Your task to perform on an android device: Search for apple airpods on costco, select the first entry, and add it to the cart. Image 0: 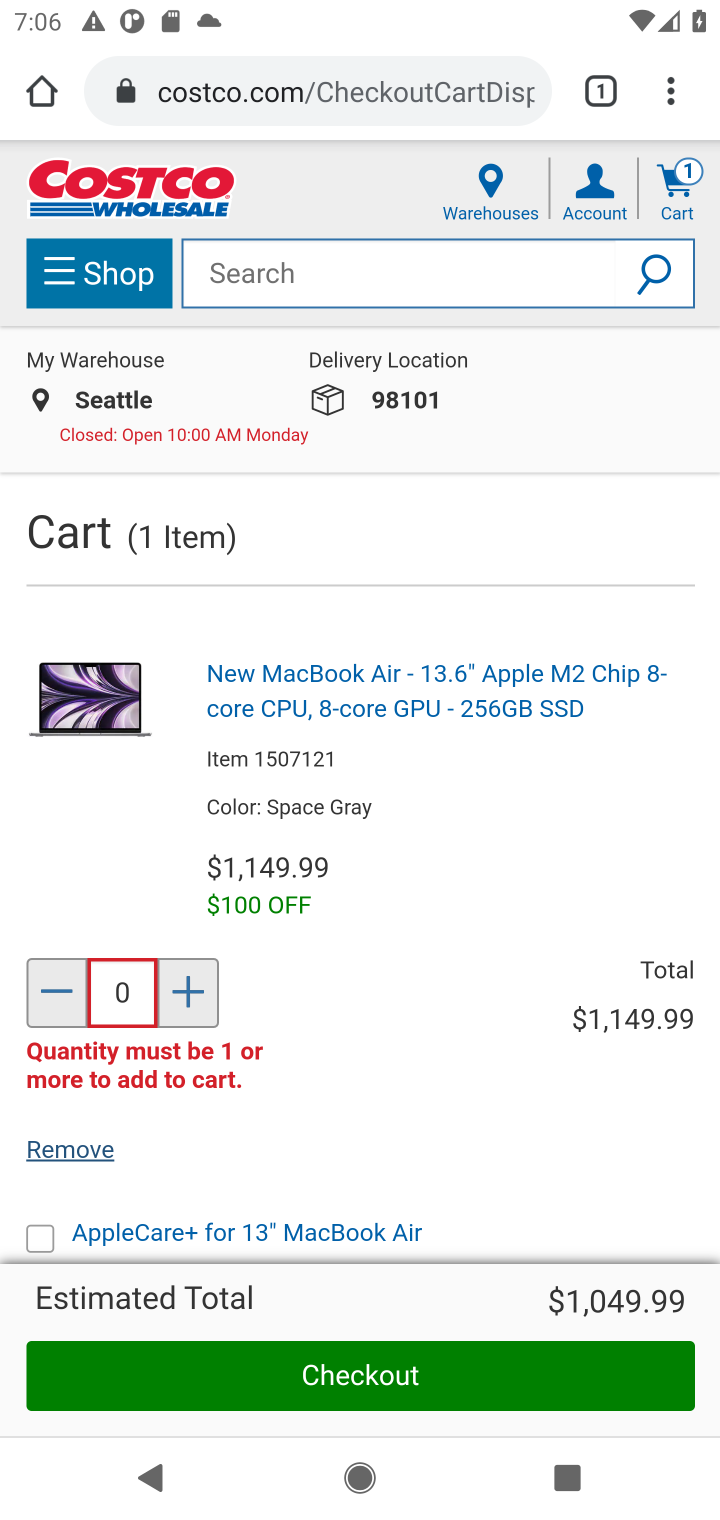
Step 0: press home button
Your task to perform on an android device: Search for apple airpods on costco, select the first entry, and add it to the cart. Image 1: 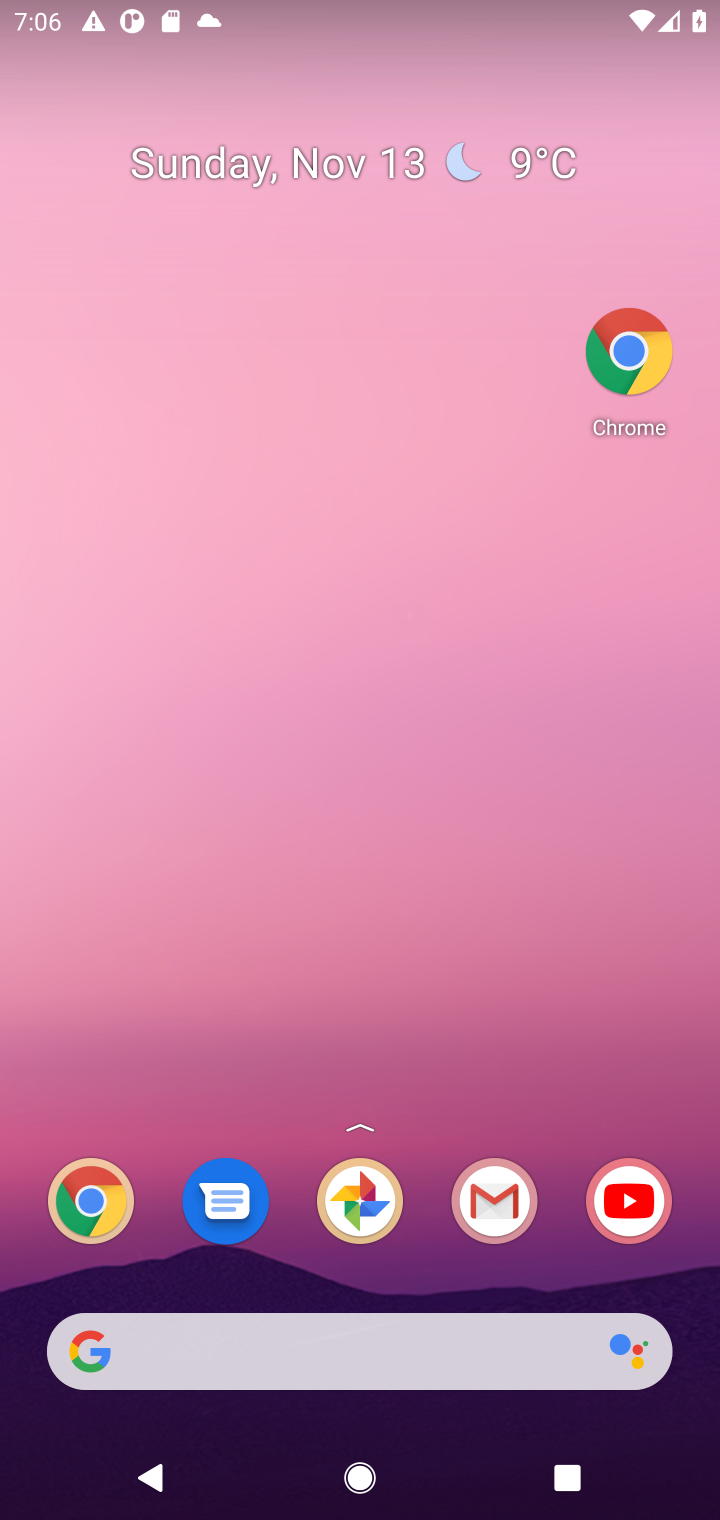
Step 1: drag from (421, 1223) to (292, 299)
Your task to perform on an android device: Search for apple airpods on costco, select the first entry, and add it to the cart. Image 2: 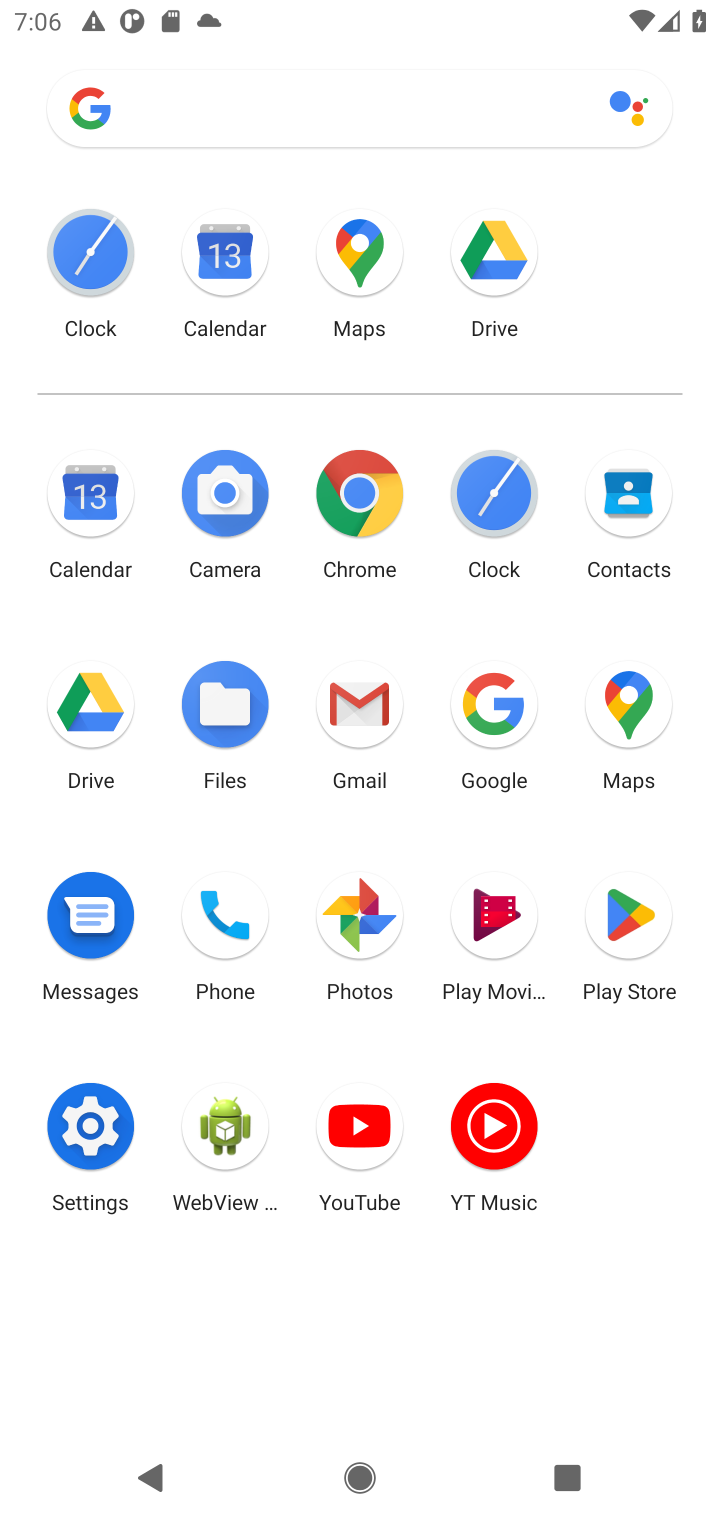
Step 2: click (364, 507)
Your task to perform on an android device: Search for apple airpods on costco, select the first entry, and add it to the cart. Image 3: 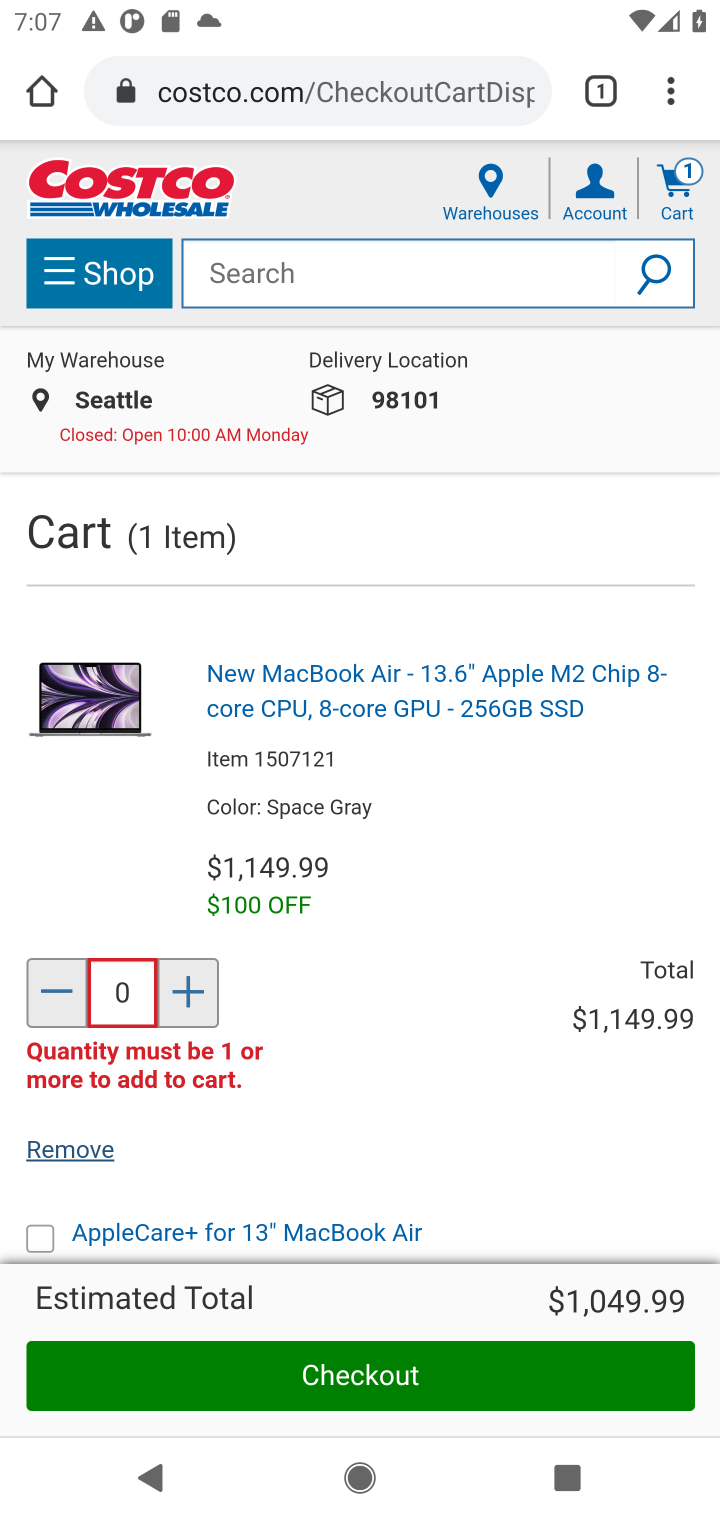
Step 3: click (405, 266)
Your task to perform on an android device: Search for apple airpods on costco, select the first entry, and add it to the cart. Image 4: 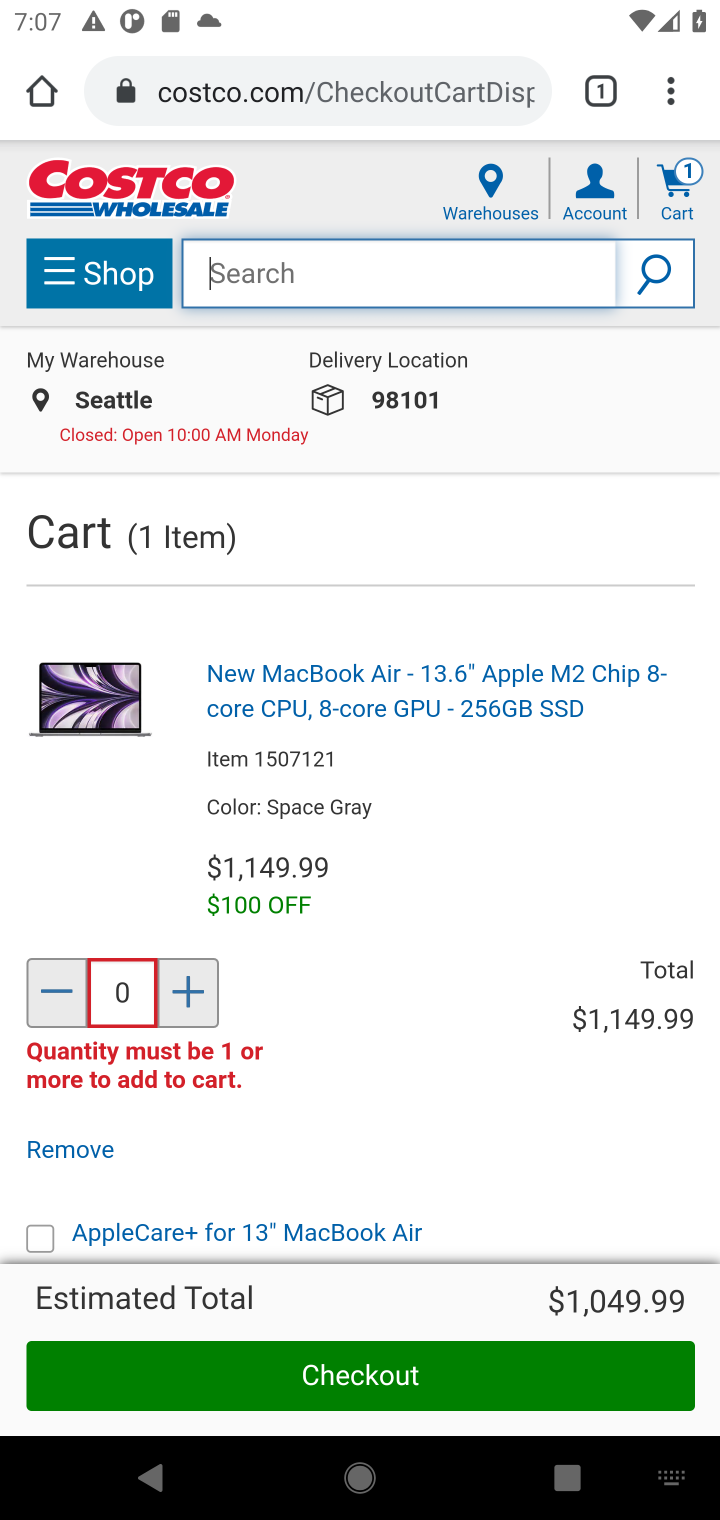
Step 4: type "apple airpods"
Your task to perform on an android device: Search for apple airpods on costco, select the first entry, and add it to the cart. Image 5: 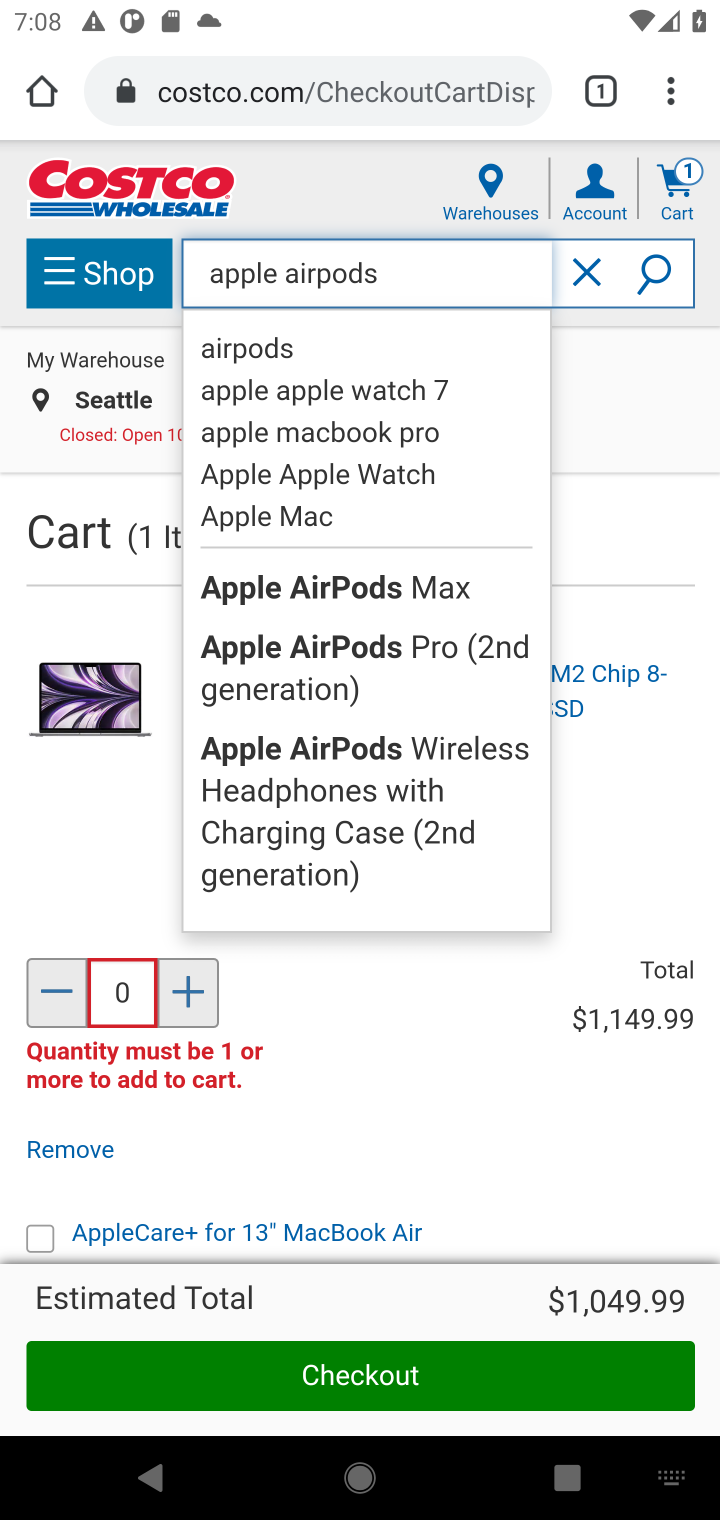
Step 5: click (681, 265)
Your task to perform on an android device: Search for apple airpods on costco, select the first entry, and add it to the cart. Image 6: 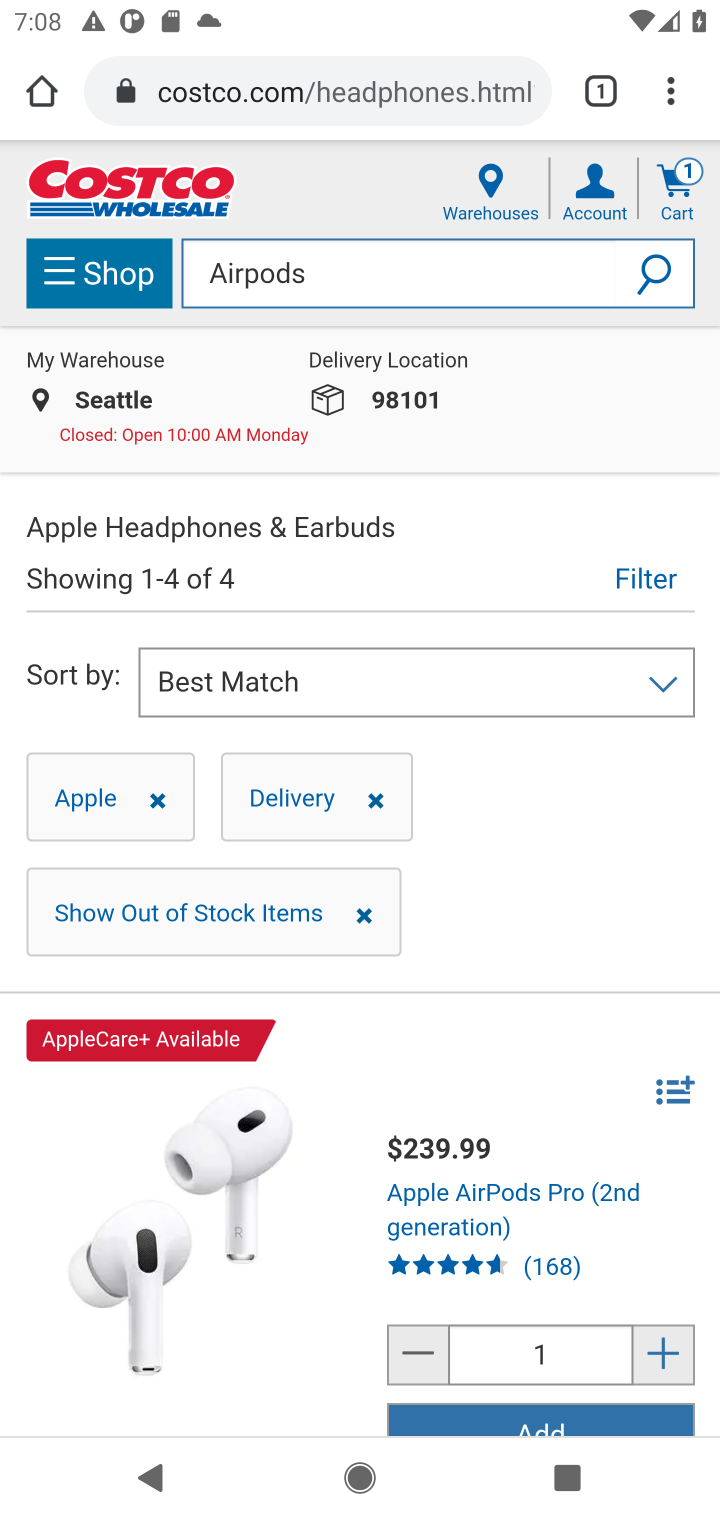
Step 6: click (295, 270)
Your task to perform on an android device: Search for apple airpods on costco, select the first entry, and add it to the cart. Image 7: 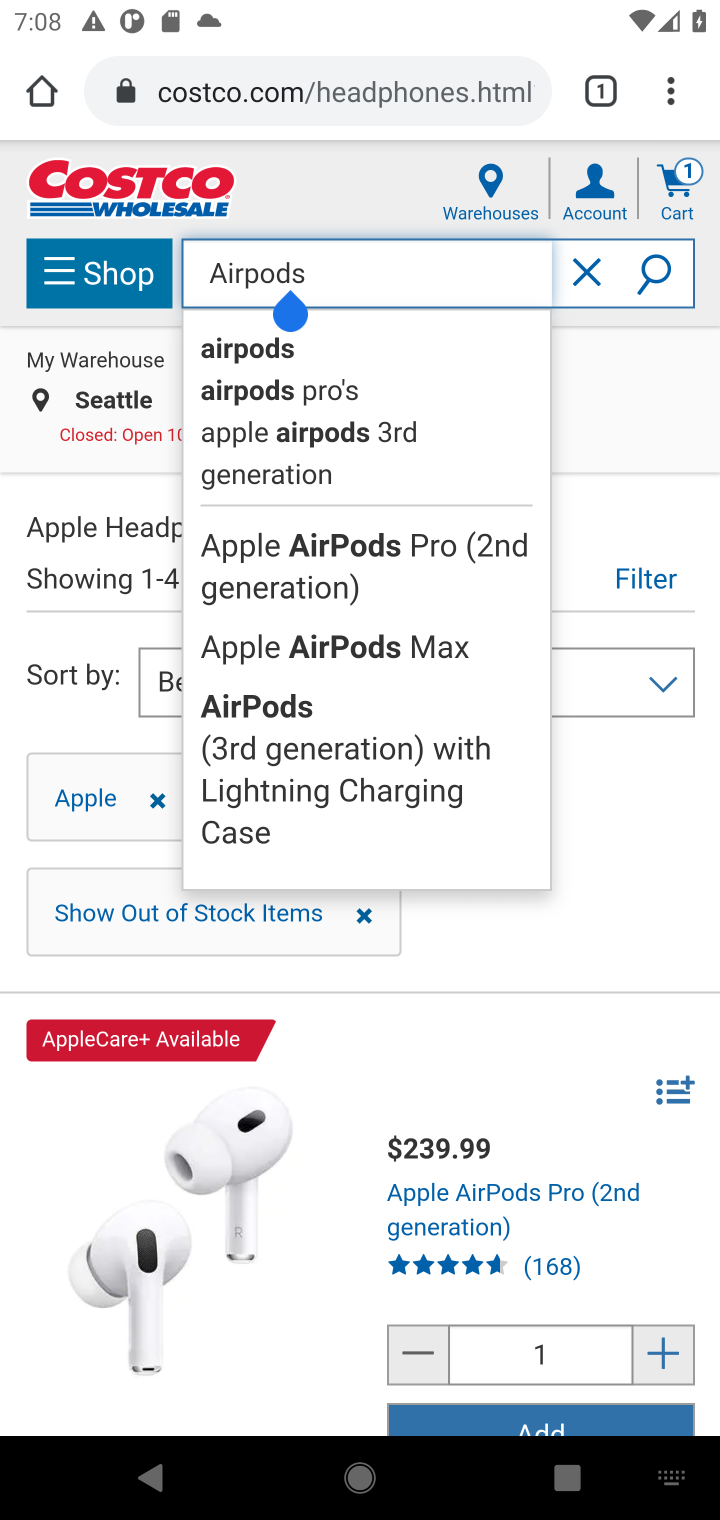
Step 7: click (583, 276)
Your task to perform on an android device: Search for apple airpods on costco, select the first entry, and add it to the cart. Image 8: 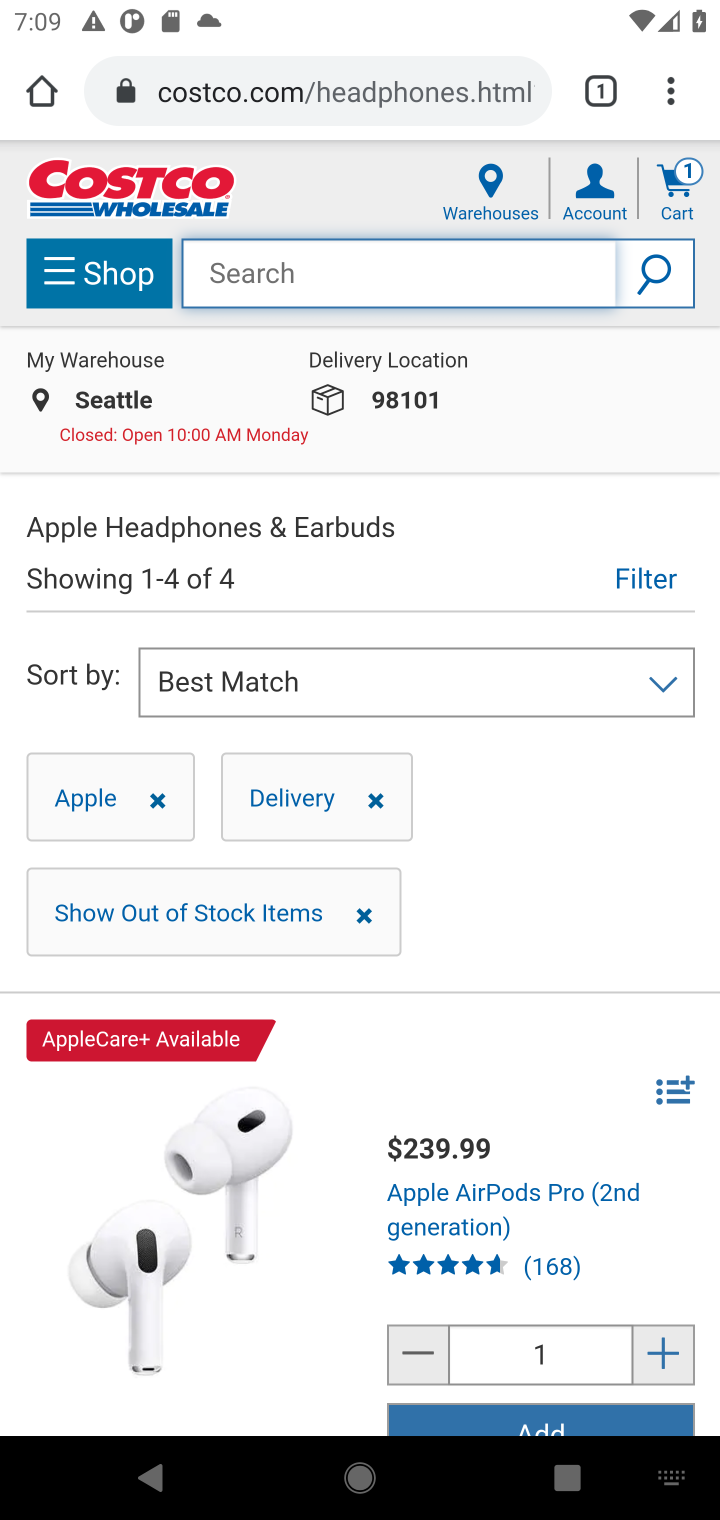
Step 8: type "applw airpods"
Your task to perform on an android device: Search for apple airpods on costco, select the first entry, and add it to the cart. Image 9: 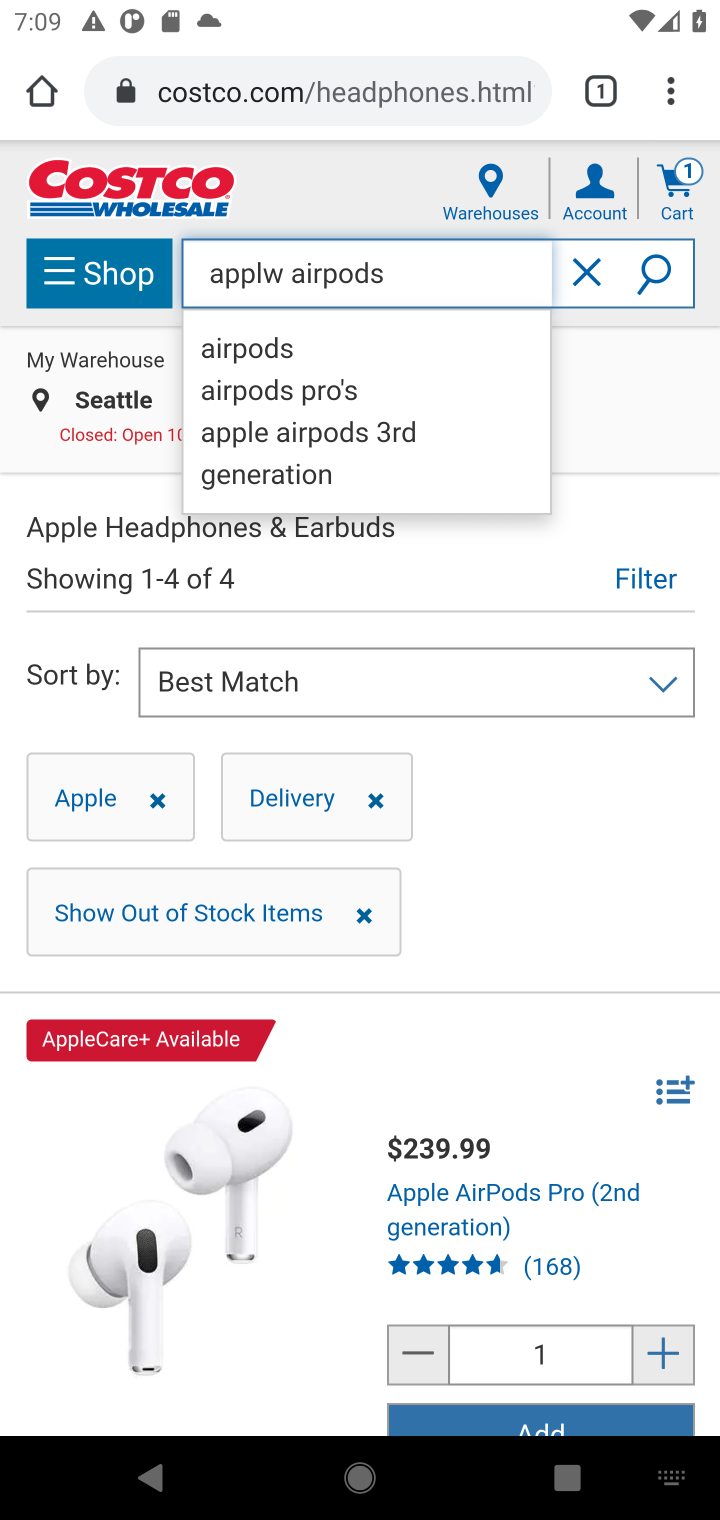
Step 9: press enter
Your task to perform on an android device: Search for apple airpods on costco, select the first entry, and add it to the cart. Image 10: 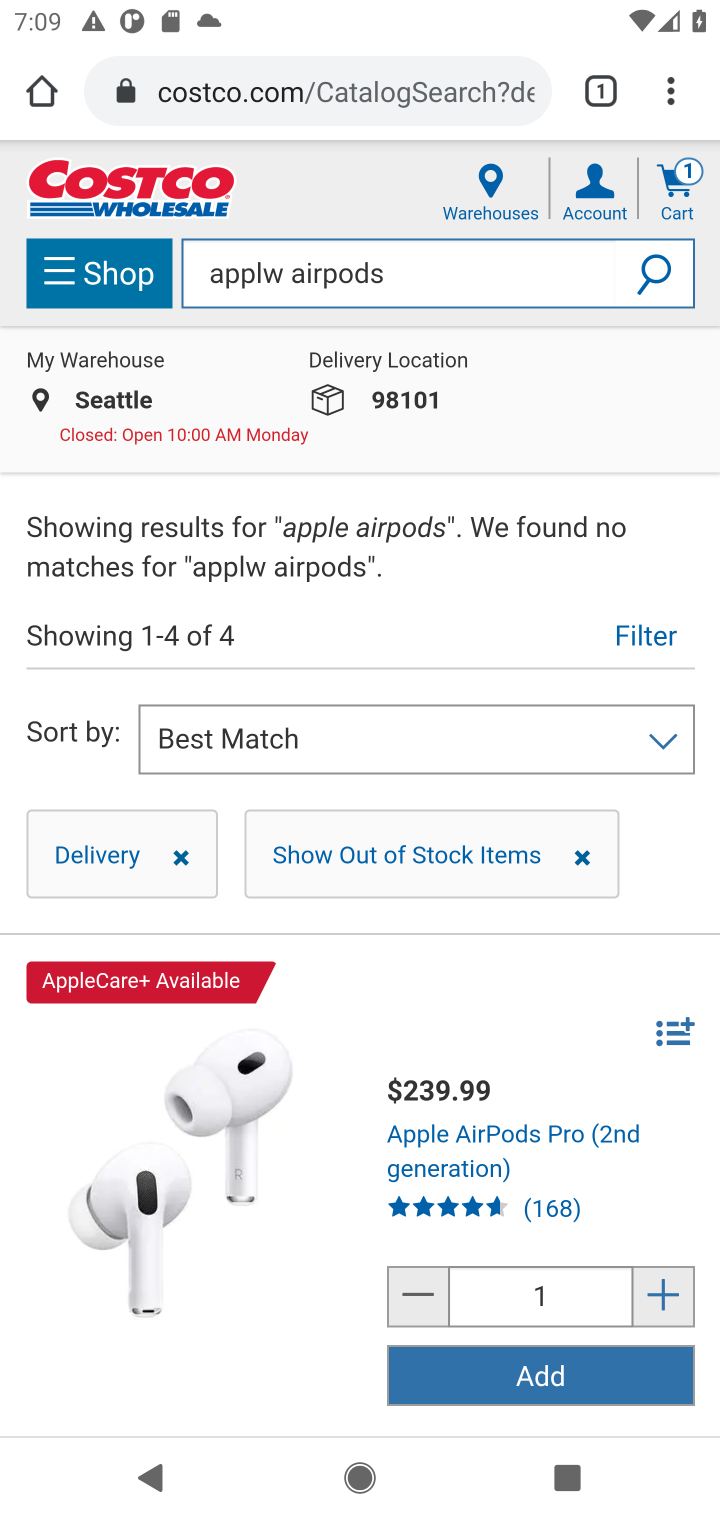
Step 10: drag from (538, 1112) to (473, 482)
Your task to perform on an android device: Search for apple airpods on costco, select the first entry, and add it to the cart. Image 11: 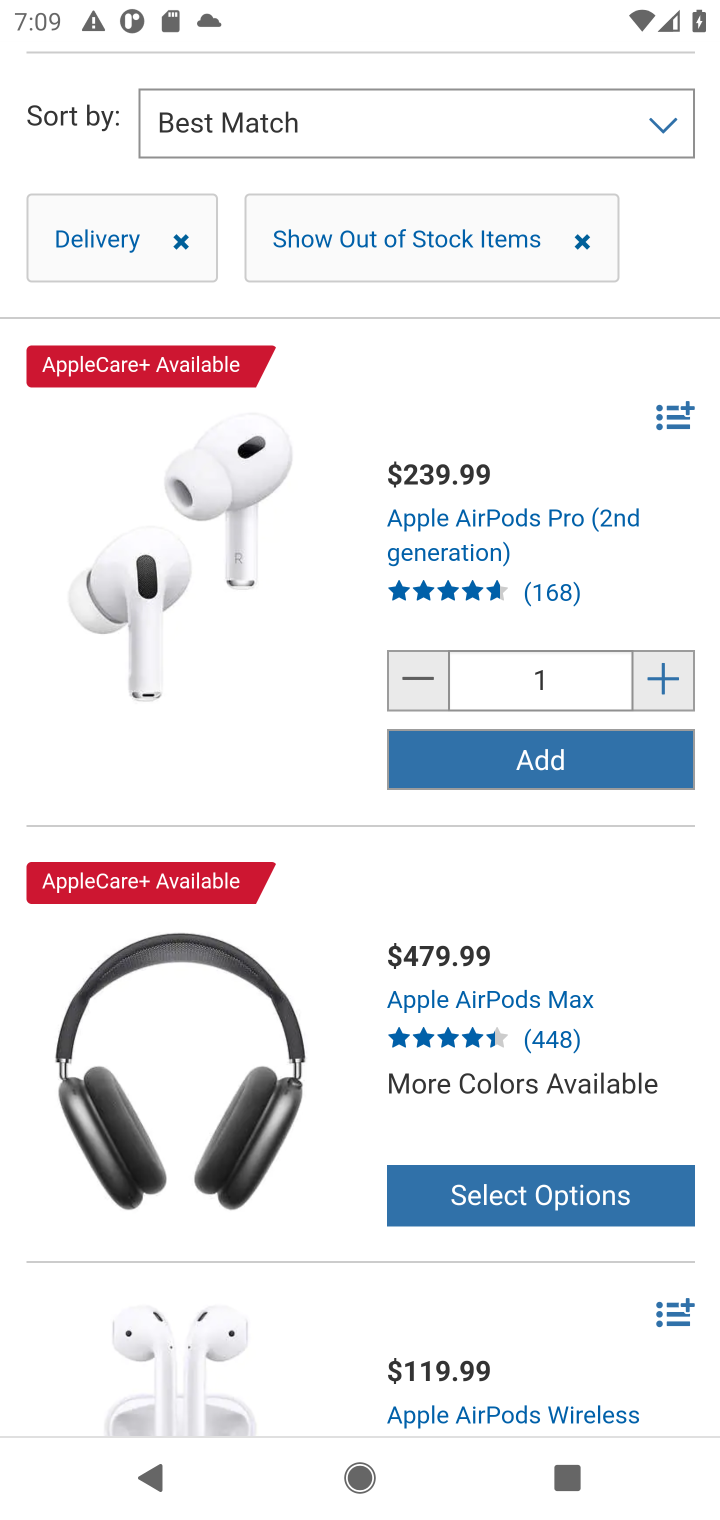
Step 11: click (565, 765)
Your task to perform on an android device: Search for apple airpods on costco, select the first entry, and add it to the cart. Image 12: 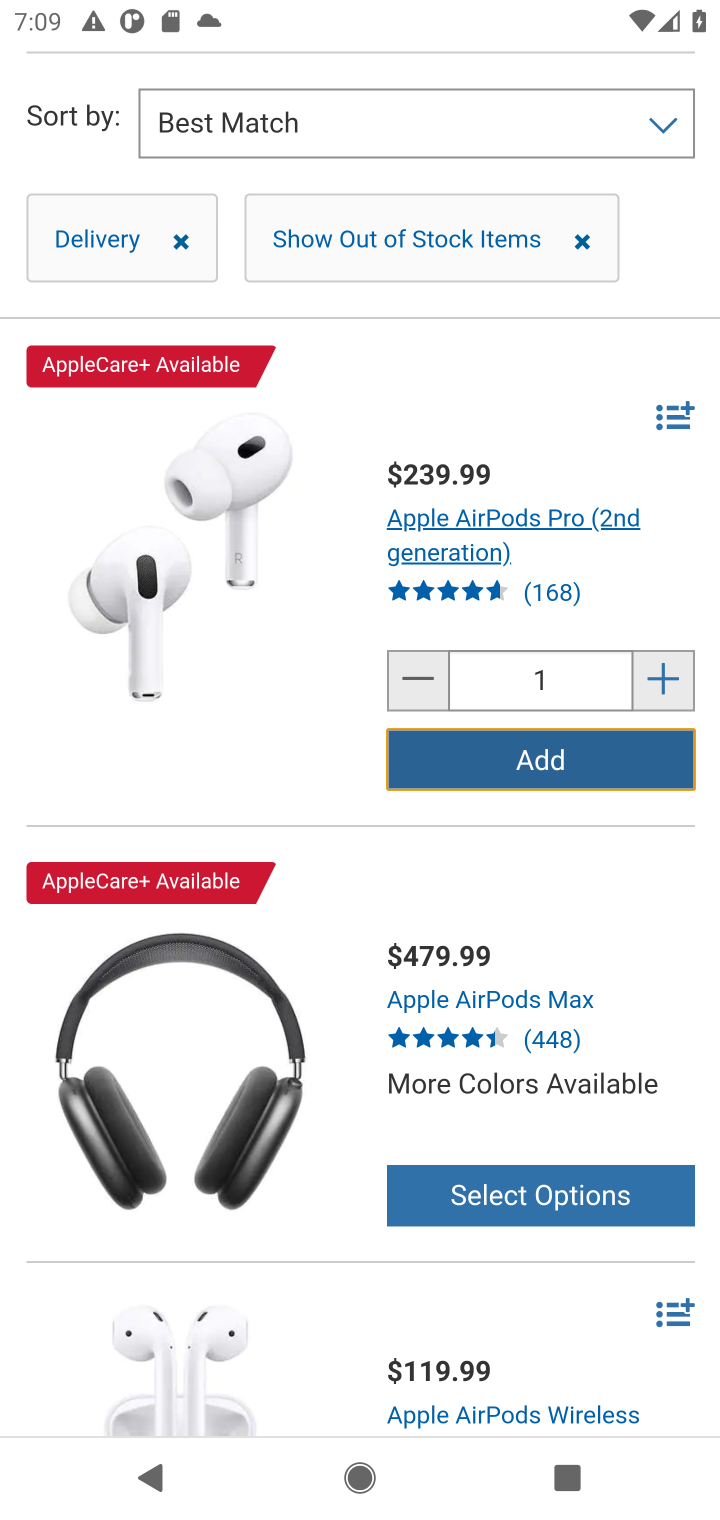
Step 12: click (582, 759)
Your task to perform on an android device: Search for apple airpods on costco, select the first entry, and add it to the cart. Image 13: 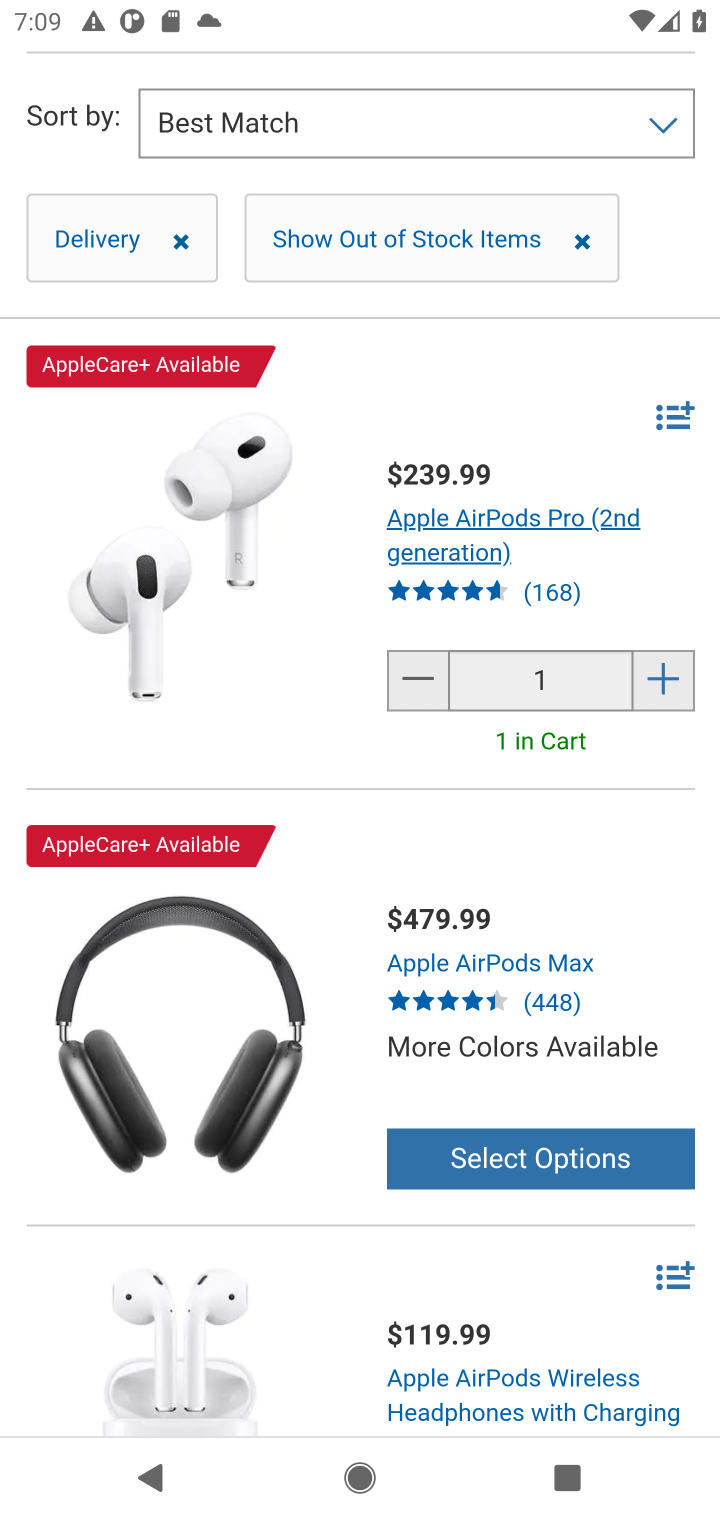
Step 13: task complete